Your task to perform on an android device: Go to settings Image 0: 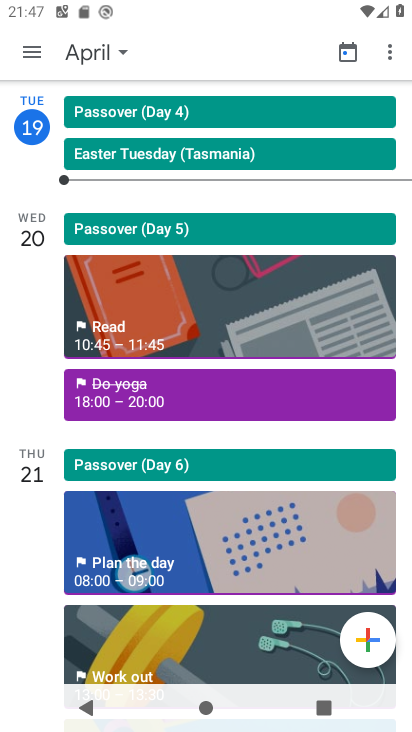
Step 0: press back button
Your task to perform on an android device: Go to settings Image 1: 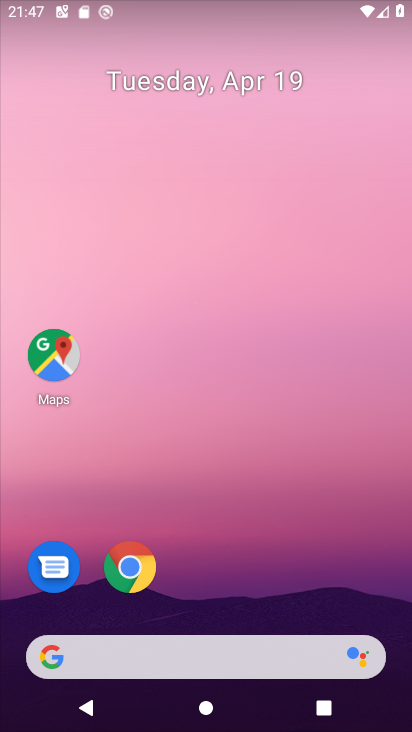
Step 1: drag from (257, 588) to (261, 44)
Your task to perform on an android device: Go to settings Image 2: 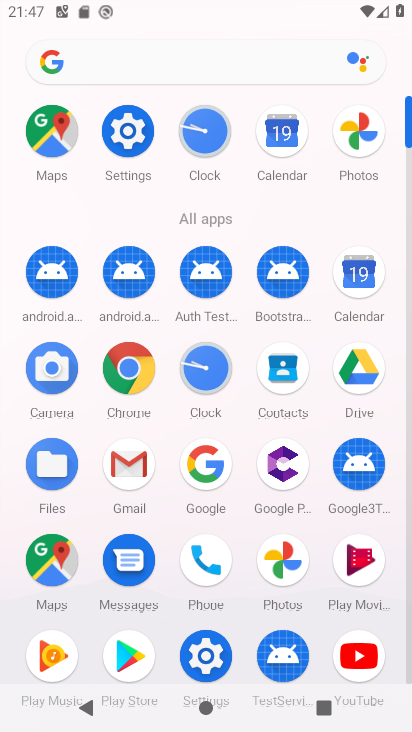
Step 2: click (125, 144)
Your task to perform on an android device: Go to settings Image 3: 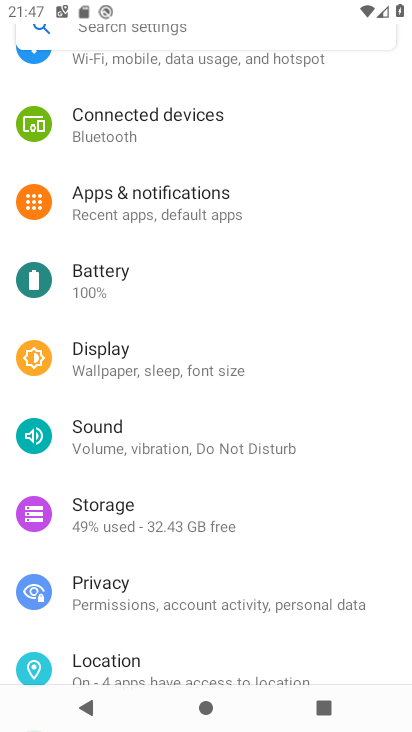
Step 3: task complete